Your task to perform on an android device: delete browsing data in the chrome app Image 0: 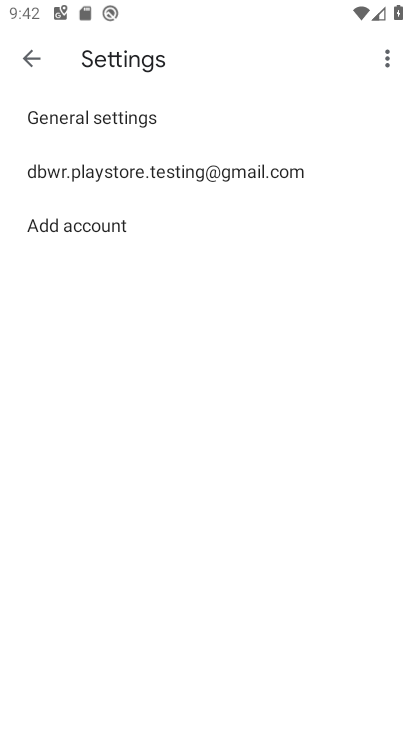
Step 0: press home button
Your task to perform on an android device: delete browsing data in the chrome app Image 1: 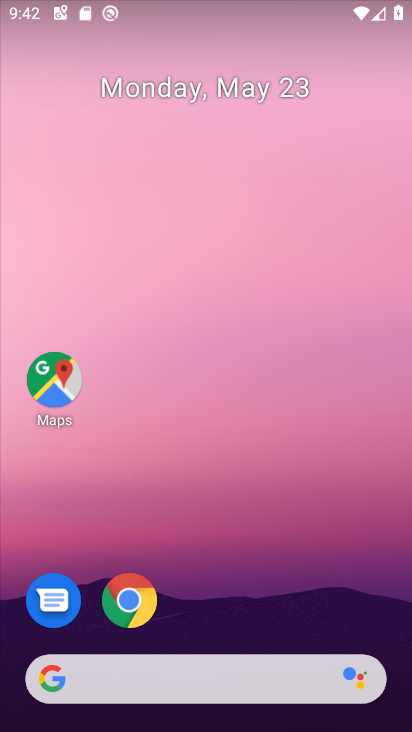
Step 1: click (128, 603)
Your task to perform on an android device: delete browsing data in the chrome app Image 2: 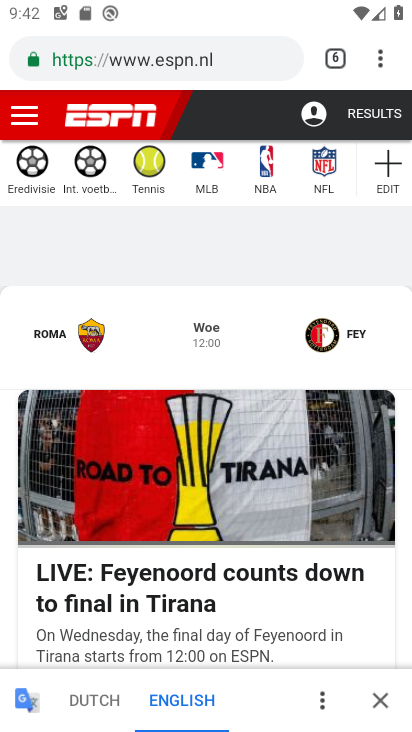
Step 2: click (382, 66)
Your task to perform on an android device: delete browsing data in the chrome app Image 3: 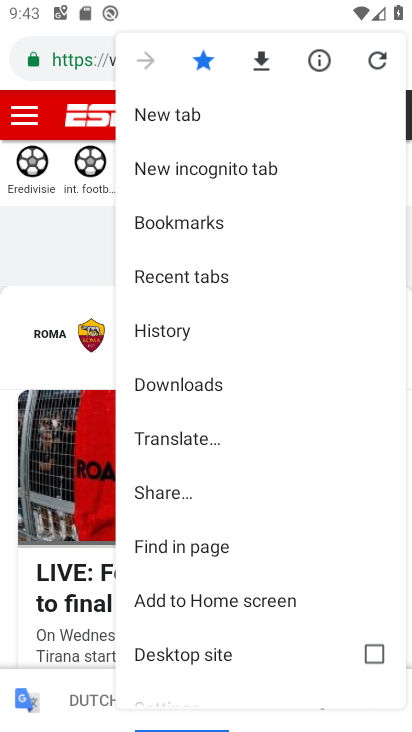
Step 3: click (163, 328)
Your task to perform on an android device: delete browsing data in the chrome app Image 4: 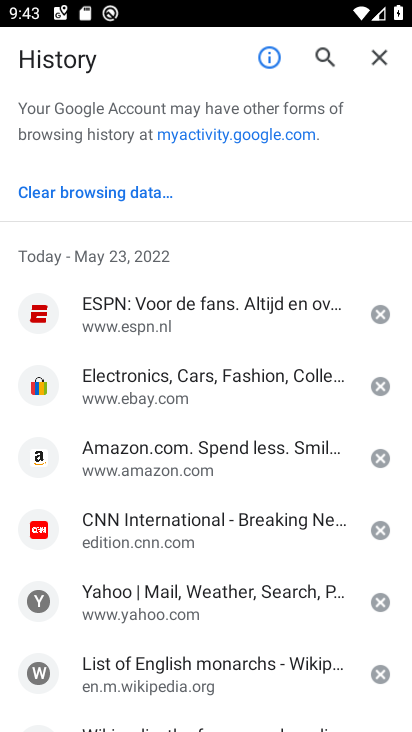
Step 4: click (83, 189)
Your task to perform on an android device: delete browsing data in the chrome app Image 5: 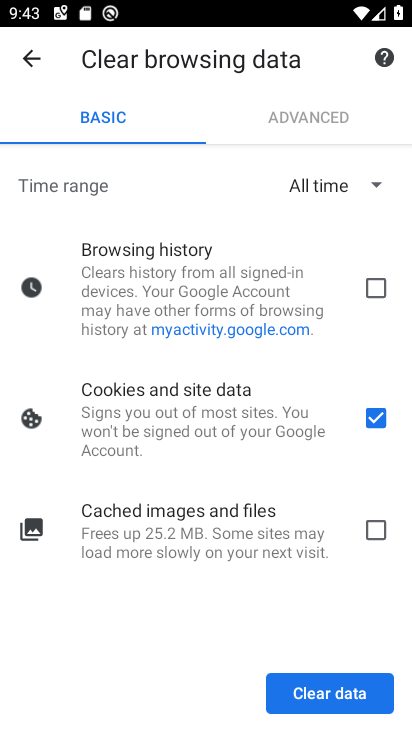
Step 5: click (376, 287)
Your task to perform on an android device: delete browsing data in the chrome app Image 6: 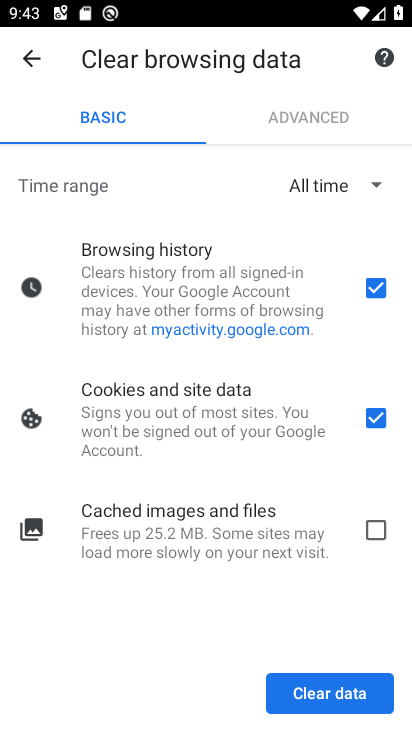
Step 6: click (377, 414)
Your task to perform on an android device: delete browsing data in the chrome app Image 7: 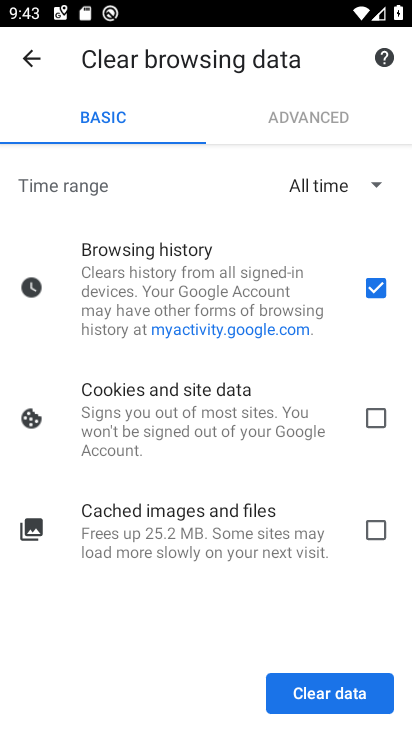
Step 7: click (322, 687)
Your task to perform on an android device: delete browsing data in the chrome app Image 8: 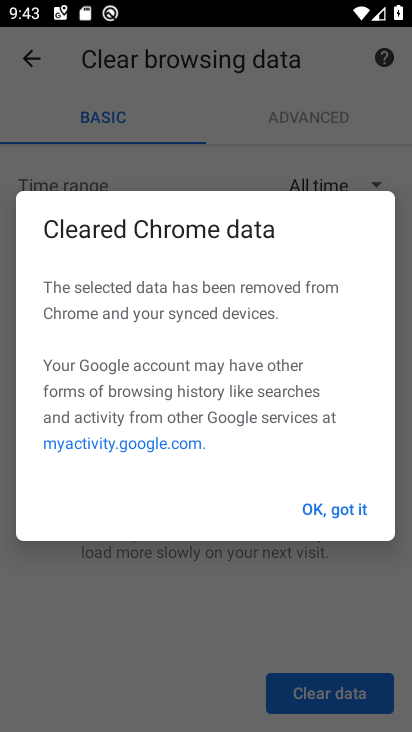
Step 8: click (339, 512)
Your task to perform on an android device: delete browsing data in the chrome app Image 9: 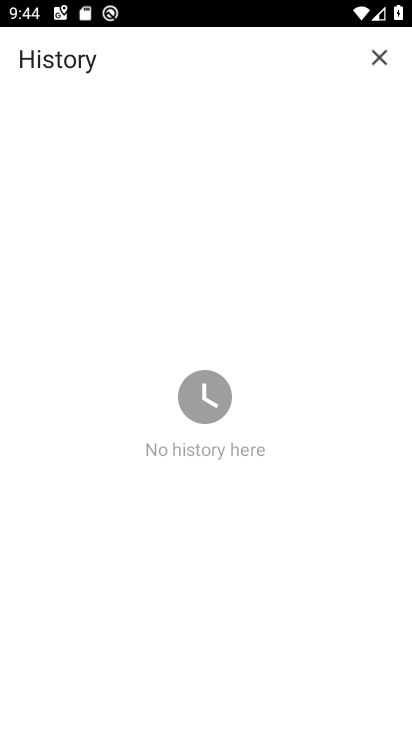
Step 9: task complete